Your task to perform on an android device: toggle improve location accuracy Image 0: 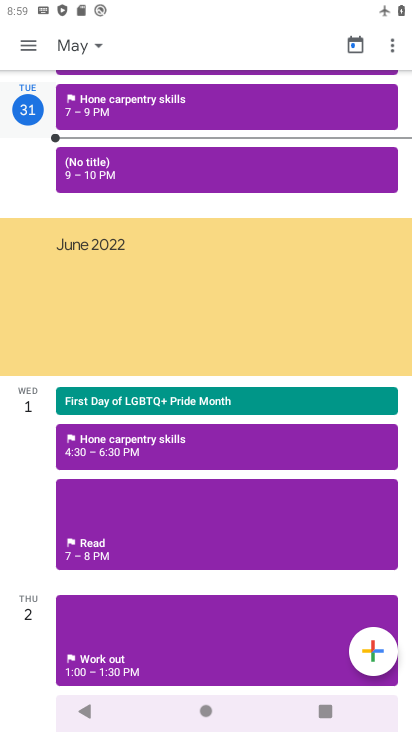
Step 0: press home button
Your task to perform on an android device: toggle improve location accuracy Image 1: 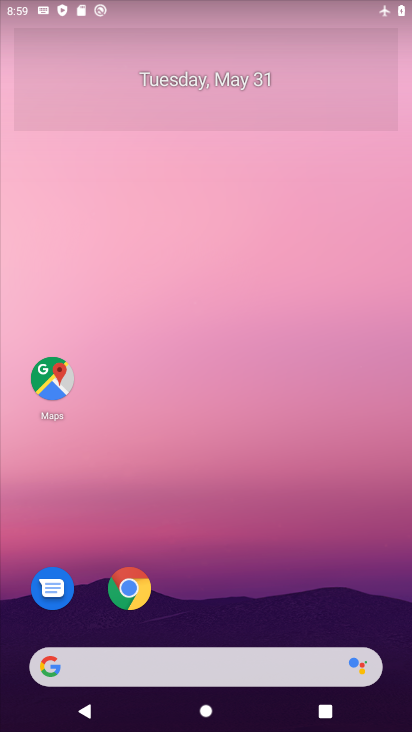
Step 1: click (50, 391)
Your task to perform on an android device: toggle improve location accuracy Image 2: 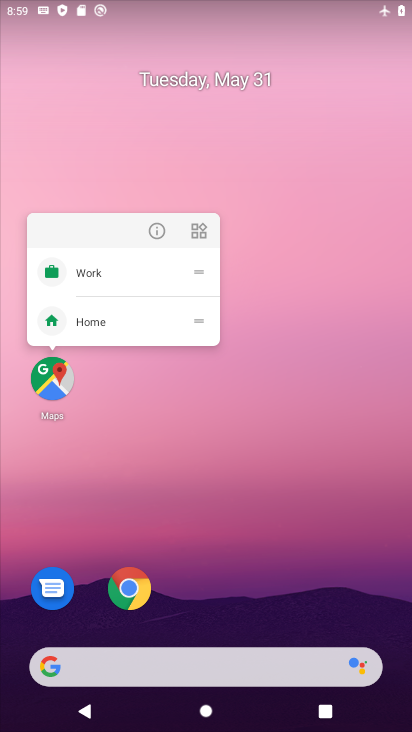
Step 2: click (61, 385)
Your task to perform on an android device: toggle improve location accuracy Image 3: 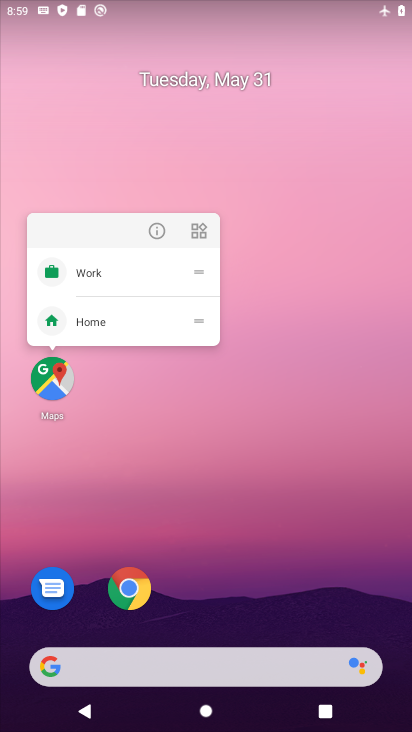
Step 3: click (61, 385)
Your task to perform on an android device: toggle improve location accuracy Image 4: 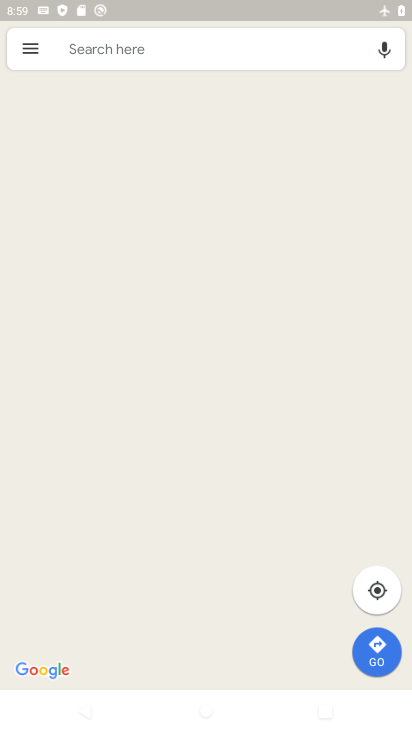
Step 4: click (27, 50)
Your task to perform on an android device: toggle improve location accuracy Image 5: 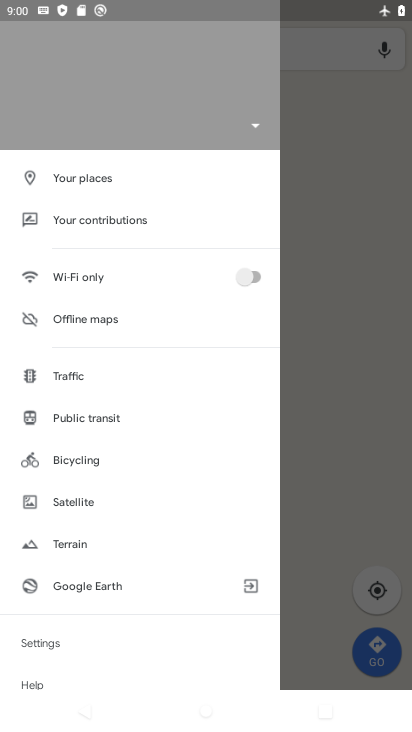
Step 5: drag from (100, 648) to (174, 124)
Your task to perform on an android device: toggle improve location accuracy Image 6: 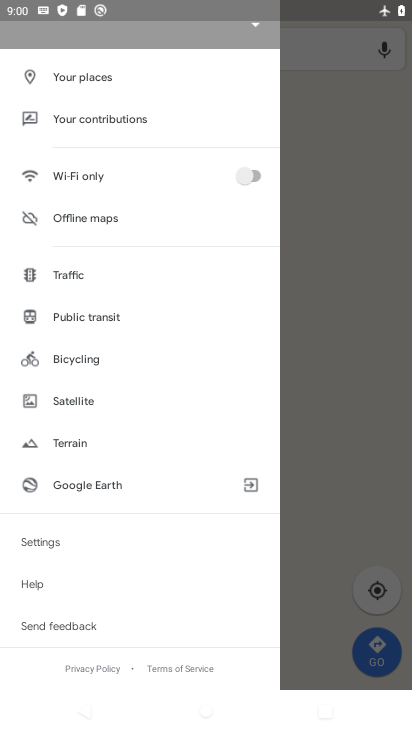
Step 6: click (71, 545)
Your task to perform on an android device: toggle improve location accuracy Image 7: 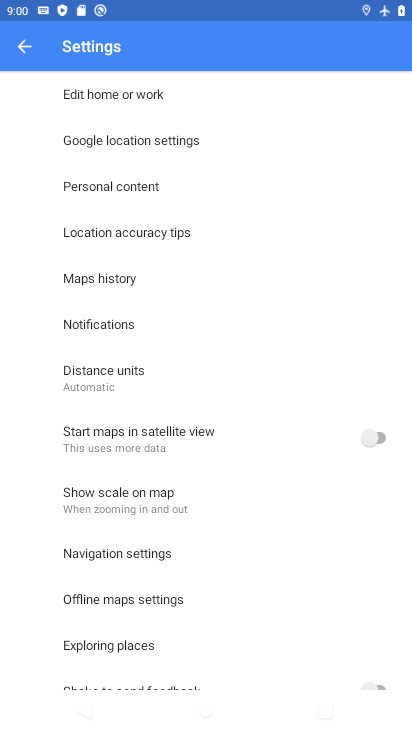
Step 7: click (158, 140)
Your task to perform on an android device: toggle improve location accuracy Image 8: 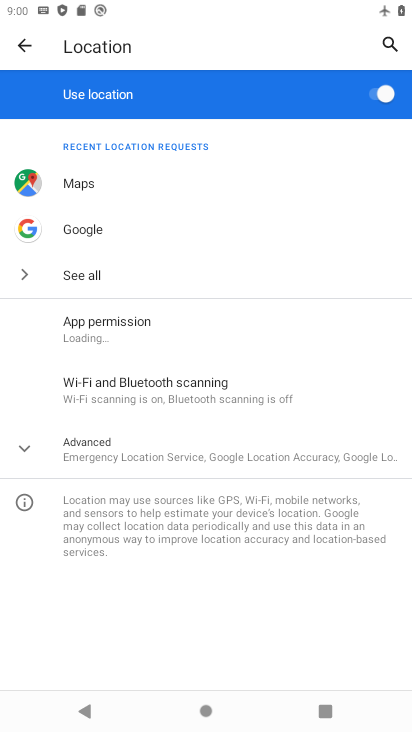
Step 8: click (259, 455)
Your task to perform on an android device: toggle improve location accuracy Image 9: 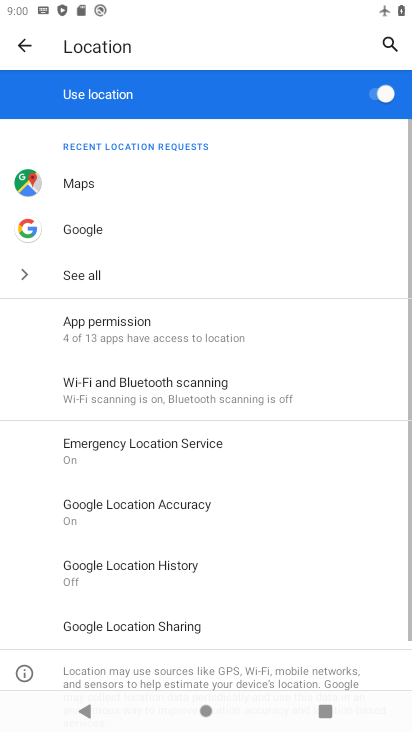
Step 9: click (189, 503)
Your task to perform on an android device: toggle improve location accuracy Image 10: 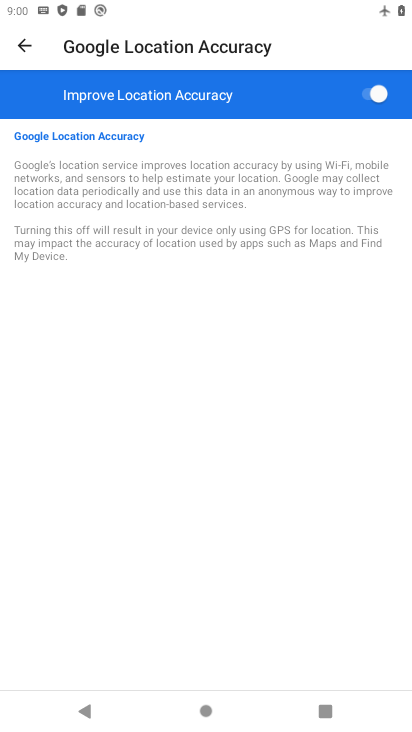
Step 10: click (382, 92)
Your task to perform on an android device: toggle improve location accuracy Image 11: 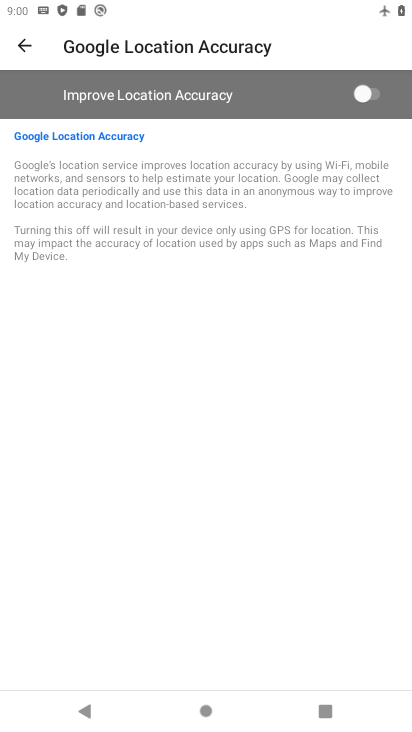
Step 11: task complete